Your task to perform on an android device: Open network settings Image 0: 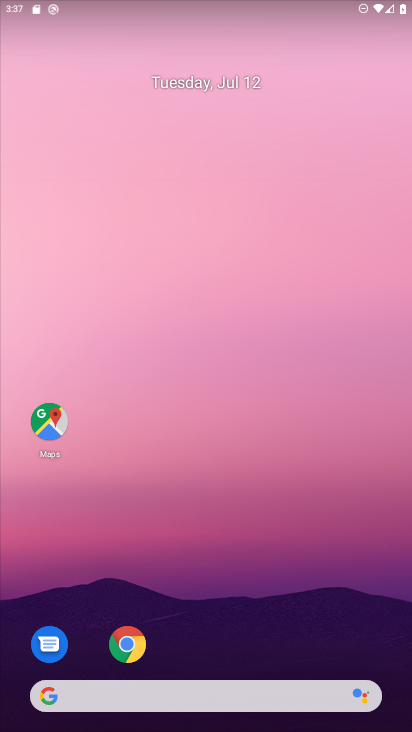
Step 0: drag from (331, 637) to (296, 200)
Your task to perform on an android device: Open network settings Image 1: 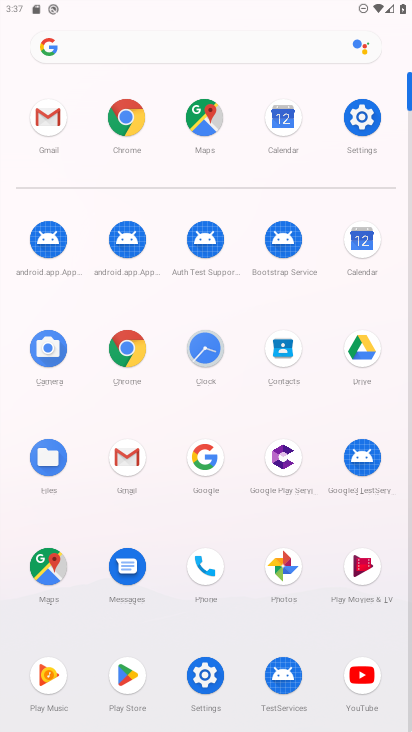
Step 1: click (368, 114)
Your task to perform on an android device: Open network settings Image 2: 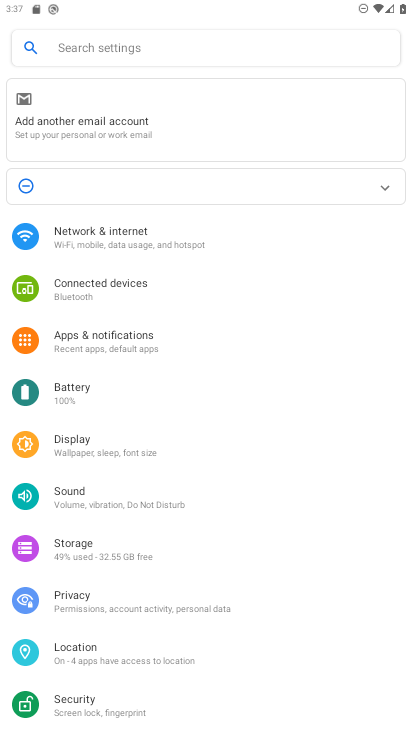
Step 2: click (86, 228)
Your task to perform on an android device: Open network settings Image 3: 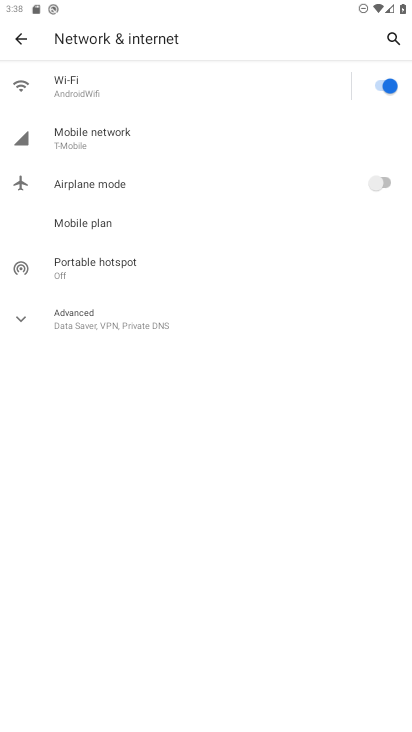
Step 3: click (142, 326)
Your task to perform on an android device: Open network settings Image 4: 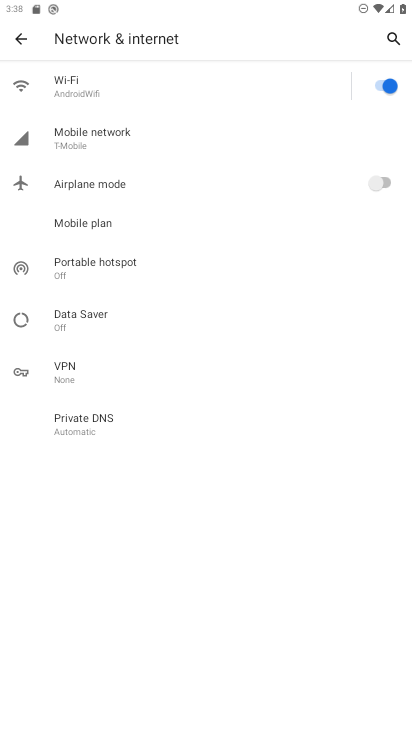
Step 4: task complete